Your task to perform on an android device: Open battery settings Image 0: 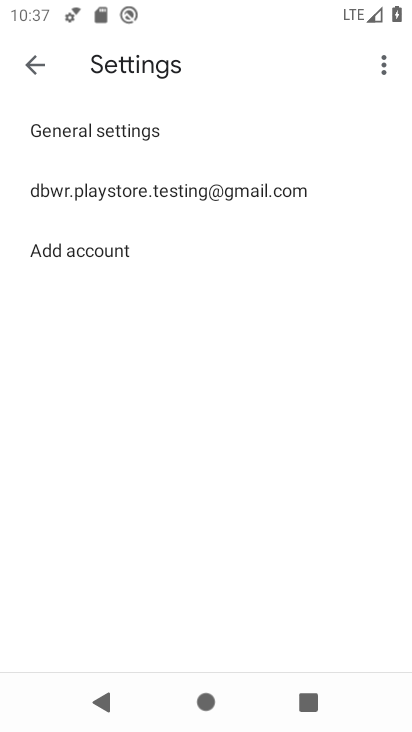
Step 0: press home button
Your task to perform on an android device: Open battery settings Image 1: 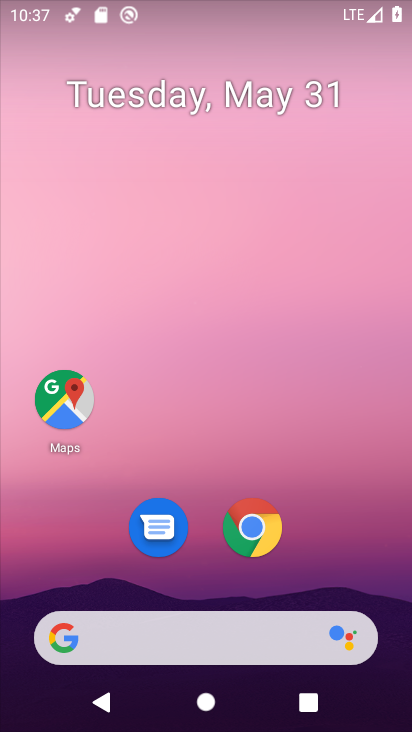
Step 1: drag from (324, 575) to (283, 15)
Your task to perform on an android device: Open battery settings Image 2: 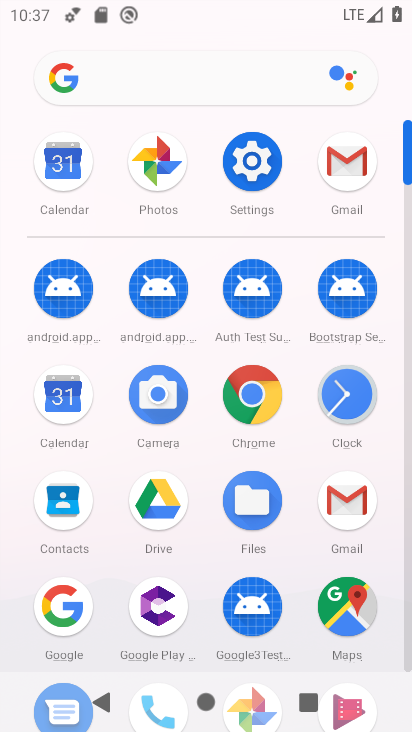
Step 2: click (251, 172)
Your task to perform on an android device: Open battery settings Image 3: 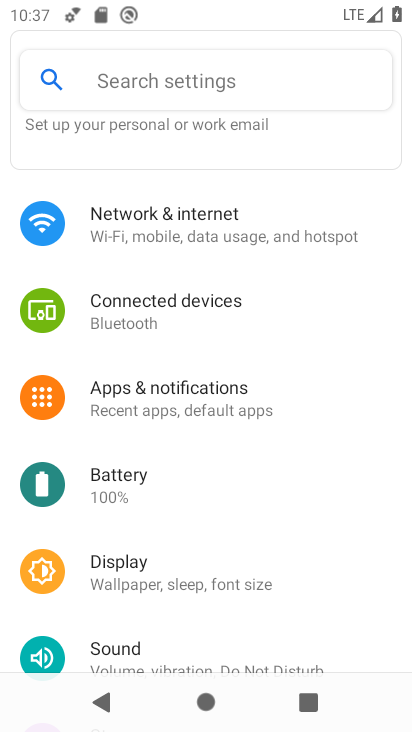
Step 3: click (117, 474)
Your task to perform on an android device: Open battery settings Image 4: 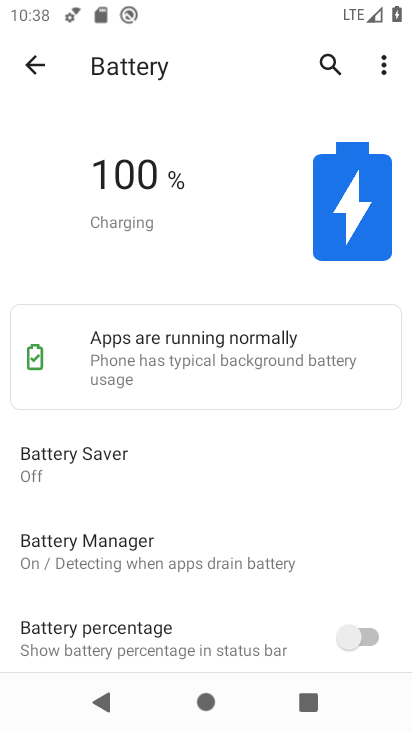
Step 4: task complete